Your task to perform on an android device: Show me popular games on the Play Store Image 0: 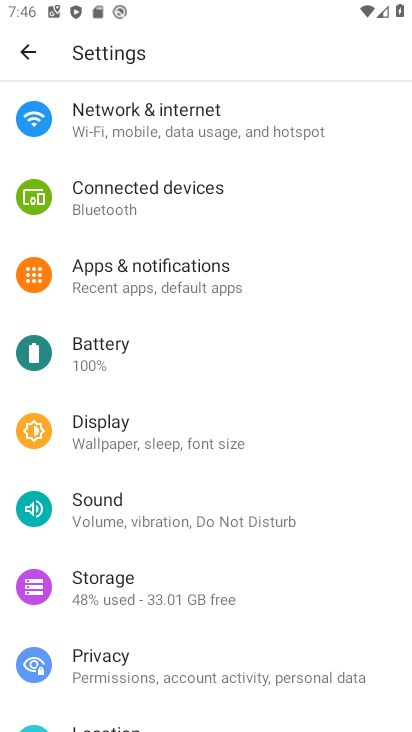
Step 0: press home button
Your task to perform on an android device: Show me popular games on the Play Store Image 1: 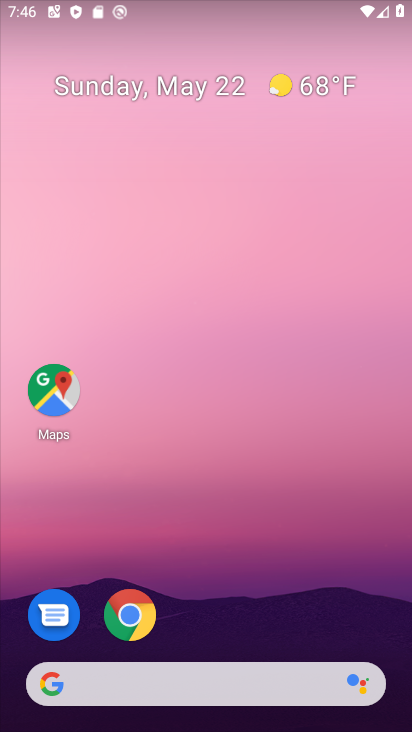
Step 1: drag from (217, 651) to (217, 59)
Your task to perform on an android device: Show me popular games on the Play Store Image 2: 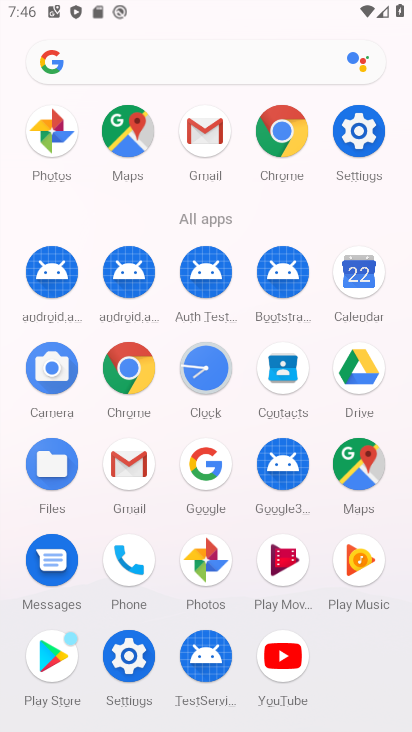
Step 2: click (42, 650)
Your task to perform on an android device: Show me popular games on the Play Store Image 3: 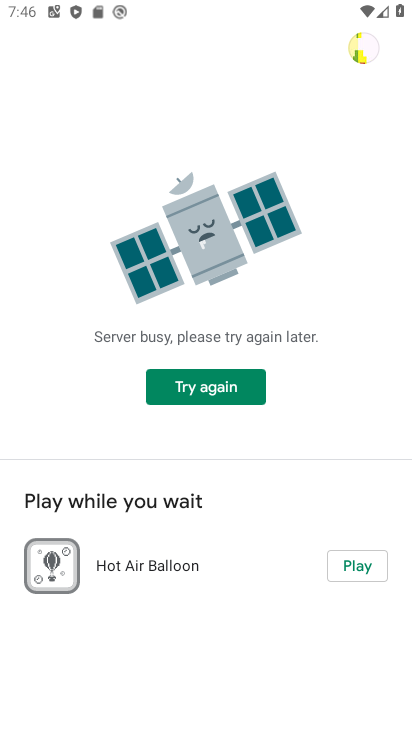
Step 3: click (201, 393)
Your task to perform on an android device: Show me popular games on the Play Store Image 4: 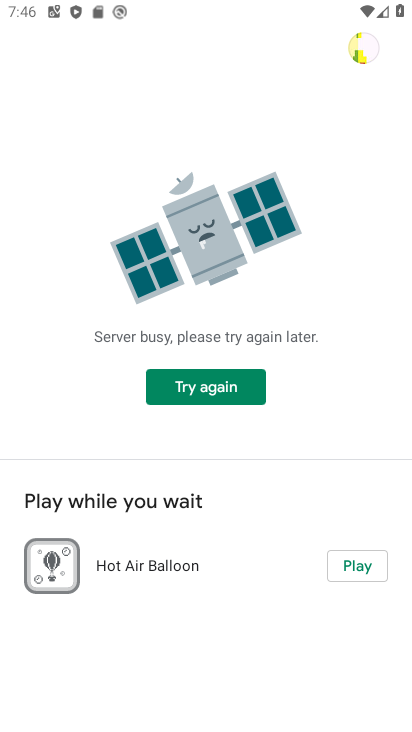
Step 4: click (201, 393)
Your task to perform on an android device: Show me popular games on the Play Store Image 5: 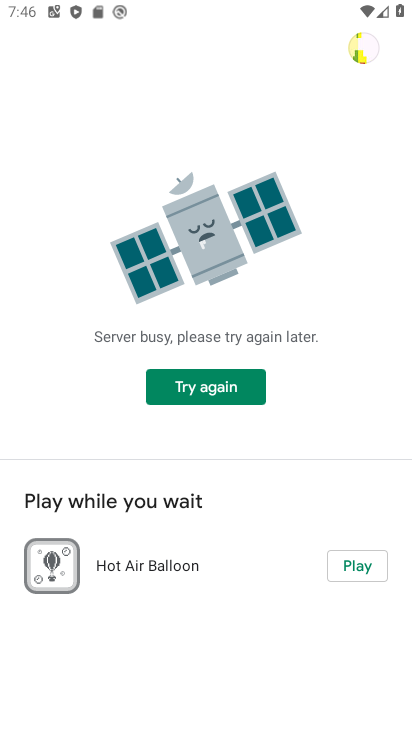
Step 5: click (201, 393)
Your task to perform on an android device: Show me popular games on the Play Store Image 6: 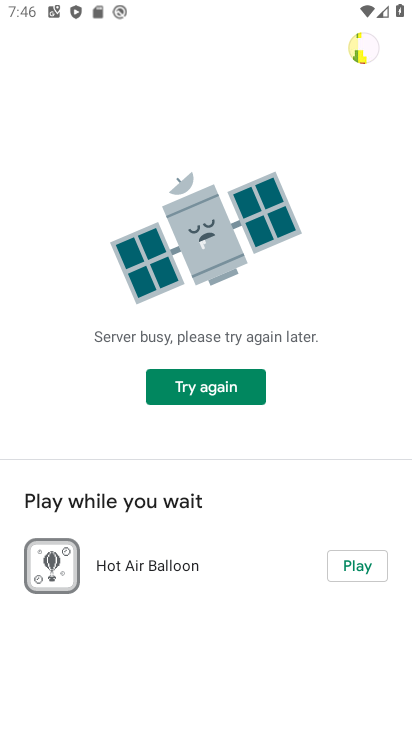
Step 6: task complete